Your task to perform on an android device: Open Maps and search for coffee Image 0: 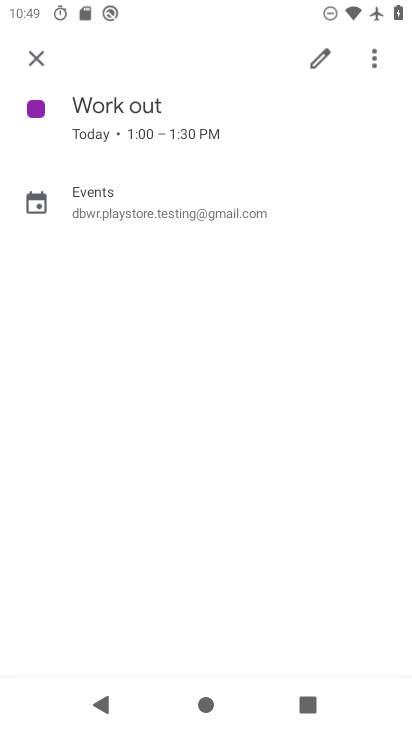
Step 0: press home button
Your task to perform on an android device: Open Maps and search for coffee Image 1: 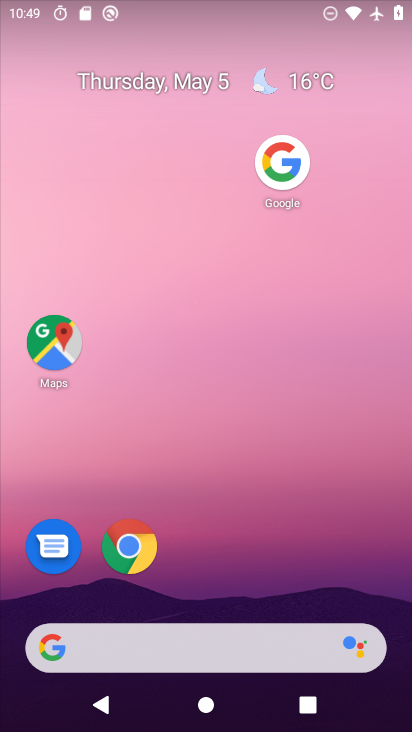
Step 1: drag from (202, 651) to (360, 72)
Your task to perform on an android device: Open Maps and search for coffee Image 2: 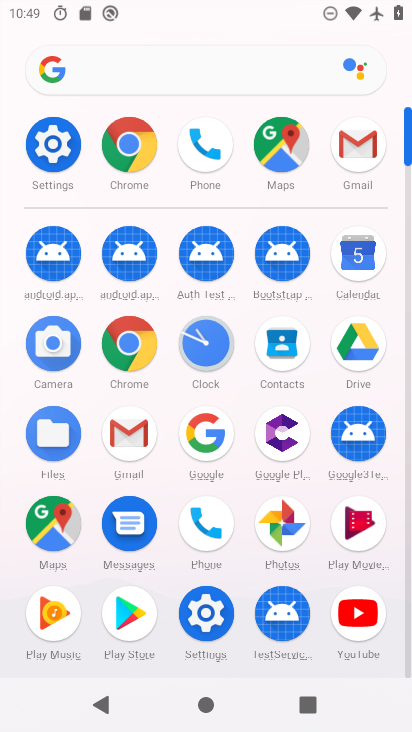
Step 2: click (59, 540)
Your task to perform on an android device: Open Maps and search for coffee Image 3: 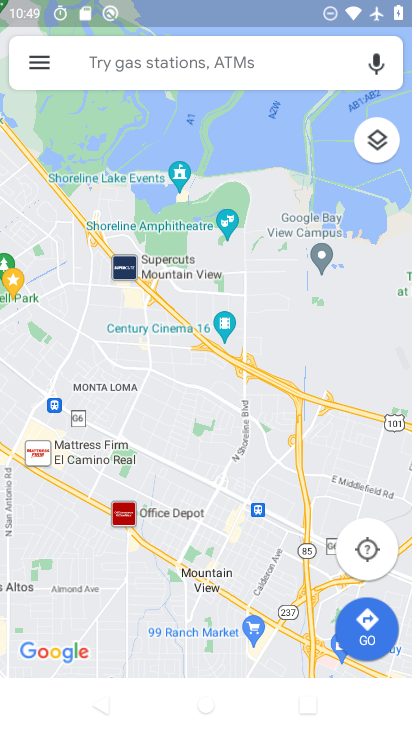
Step 3: click (199, 57)
Your task to perform on an android device: Open Maps and search for coffee Image 4: 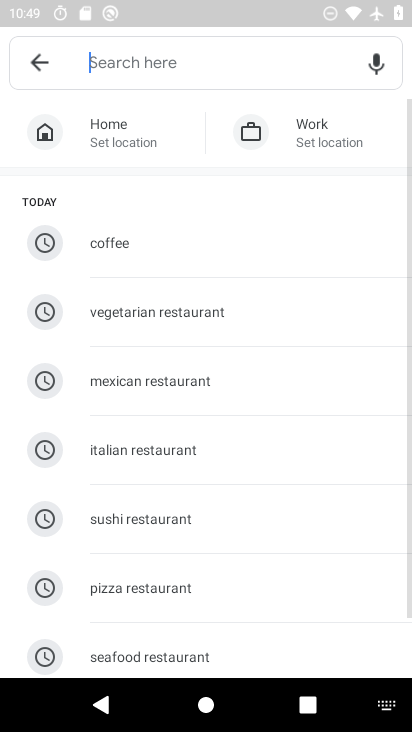
Step 4: click (90, 246)
Your task to perform on an android device: Open Maps and search for coffee Image 5: 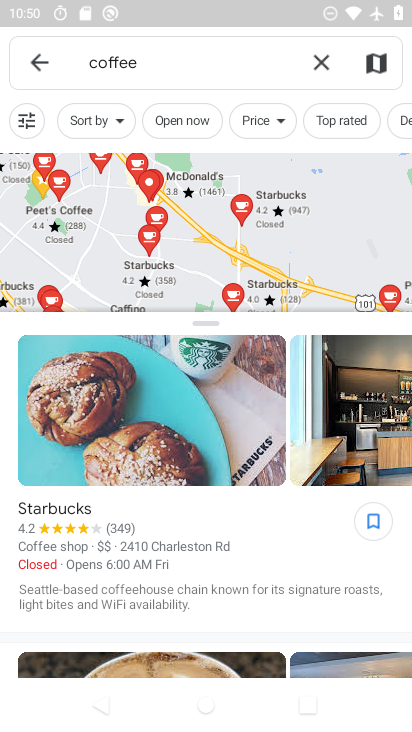
Step 5: task complete